Your task to perform on an android device: turn on bluetooth scan Image 0: 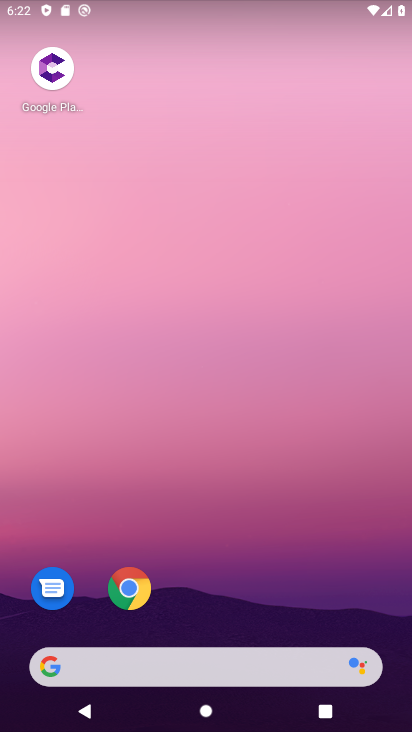
Step 0: drag from (185, 615) to (236, 19)
Your task to perform on an android device: turn on bluetooth scan Image 1: 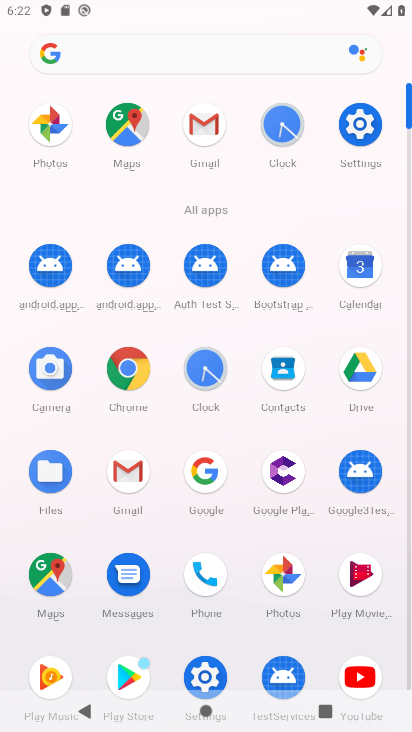
Step 1: click (356, 122)
Your task to perform on an android device: turn on bluetooth scan Image 2: 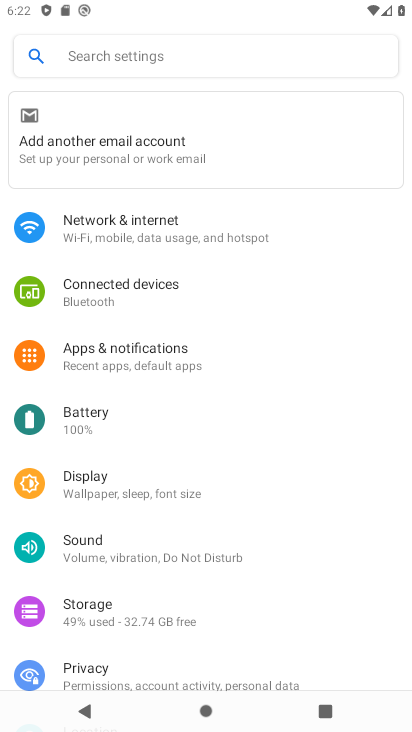
Step 2: drag from (114, 662) to (156, 81)
Your task to perform on an android device: turn on bluetooth scan Image 3: 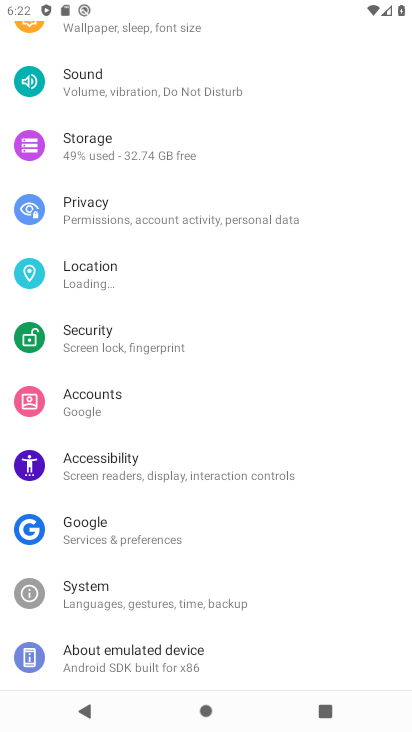
Step 3: click (78, 283)
Your task to perform on an android device: turn on bluetooth scan Image 4: 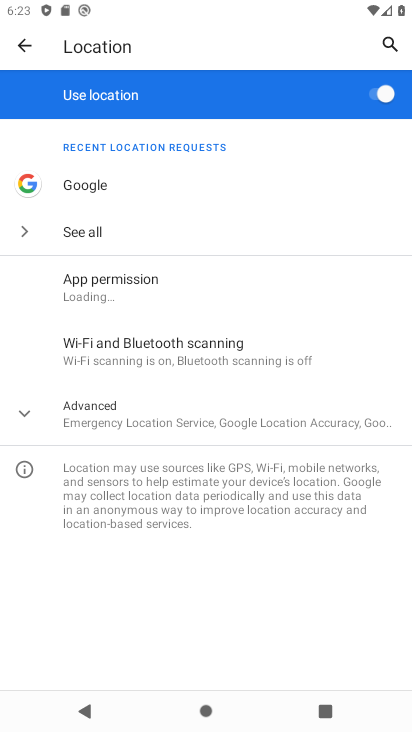
Step 4: click (176, 360)
Your task to perform on an android device: turn on bluetooth scan Image 5: 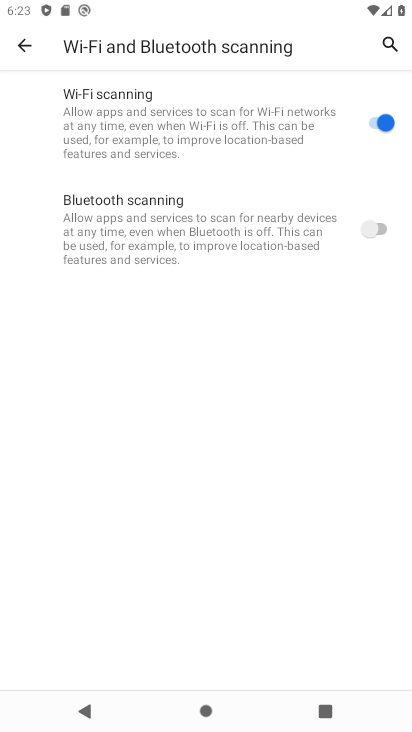
Step 5: click (377, 232)
Your task to perform on an android device: turn on bluetooth scan Image 6: 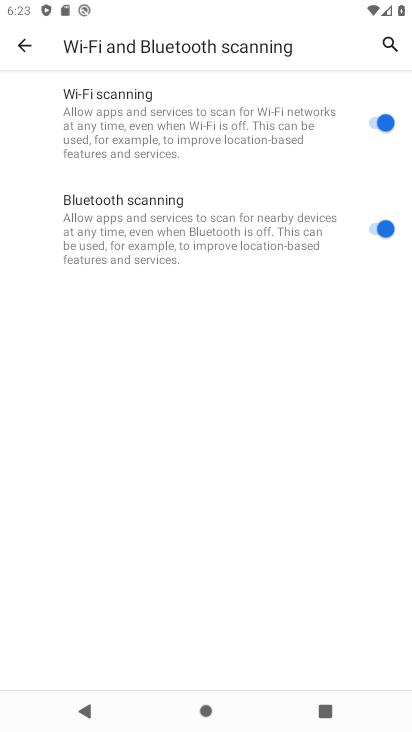
Step 6: task complete